Your task to perform on an android device: change the clock display to analog Image 0: 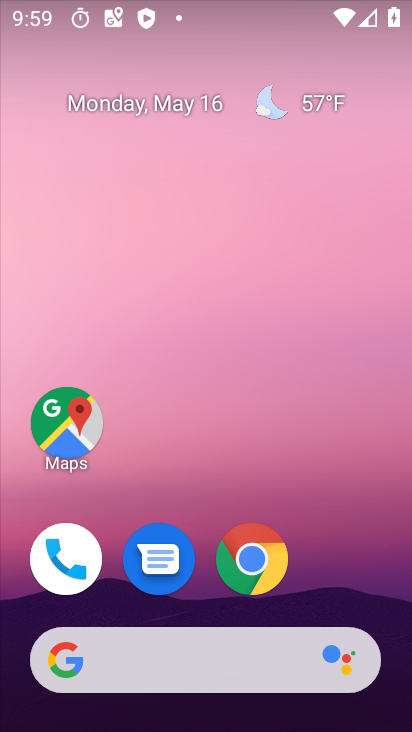
Step 0: drag from (347, 572) to (194, 41)
Your task to perform on an android device: change the clock display to analog Image 1: 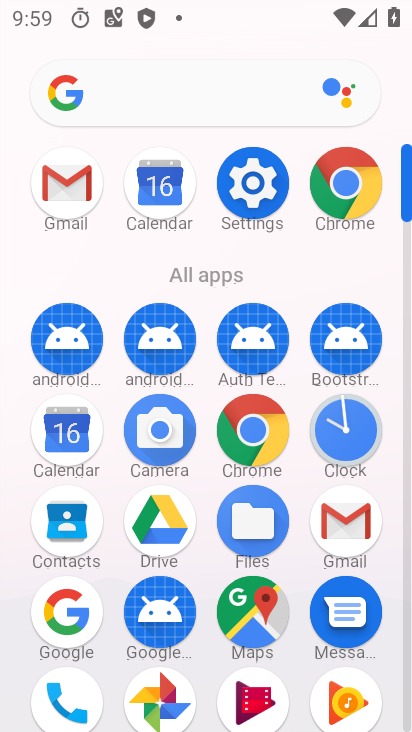
Step 1: click (339, 424)
Your task to perform on an android device: change the clock display to analog Image 2: 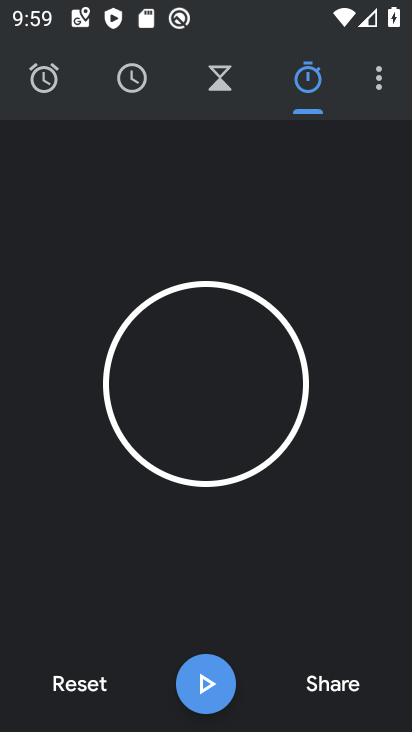
Step 2: click (374, 84)
Your task to perform on an android device: change the clock display to analog Image 3: 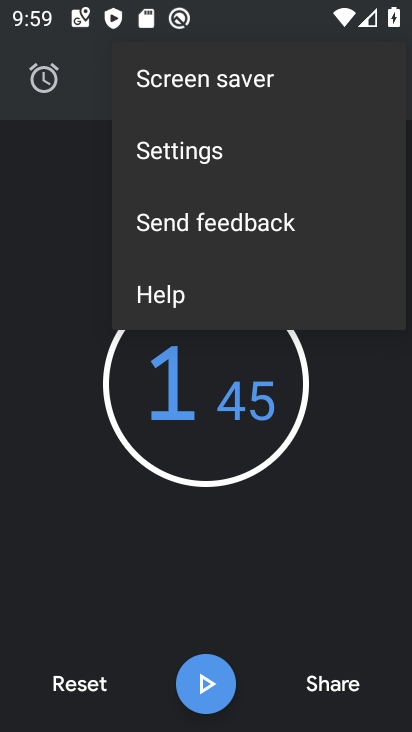
Step 3: click (187, 162)
Your task to perform on an android device: change the clock display to analog Image 4: 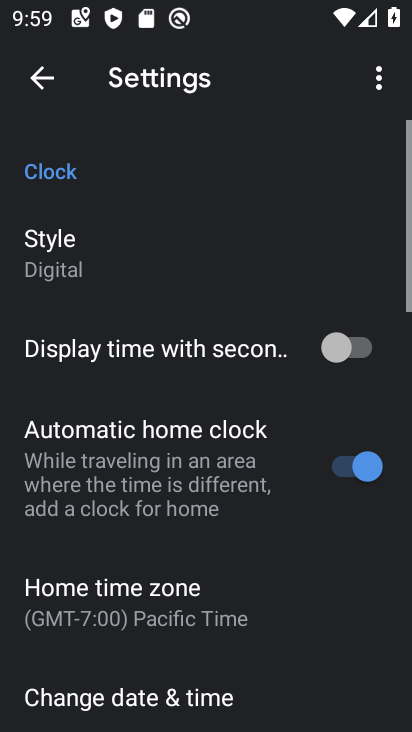
Step 4: click (65, 259)
Your task to perform on an android device: change the clock display to analog Image 5: 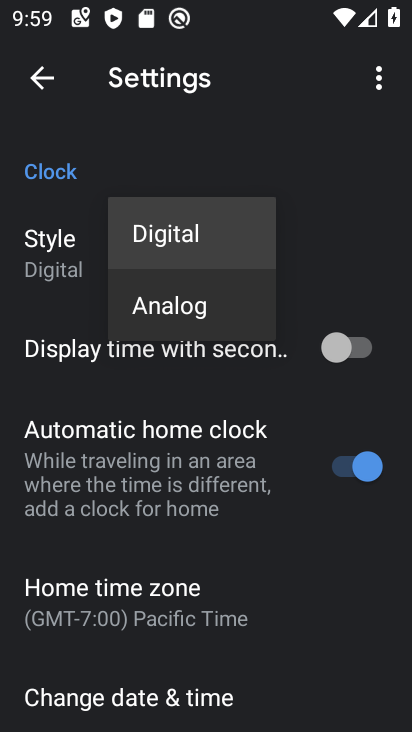
Step 5: click (174, 314)
Your task to perform on an android device: change the clock display to analog Image 6: 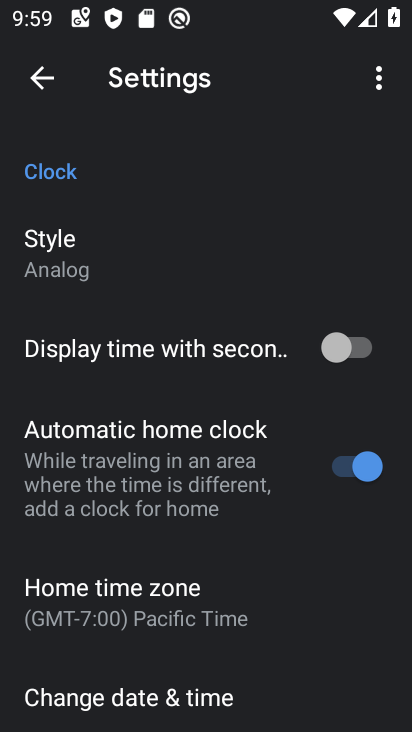
Step 6: task complete